Your task to perform on an android device: Go to notification settings Image 0: 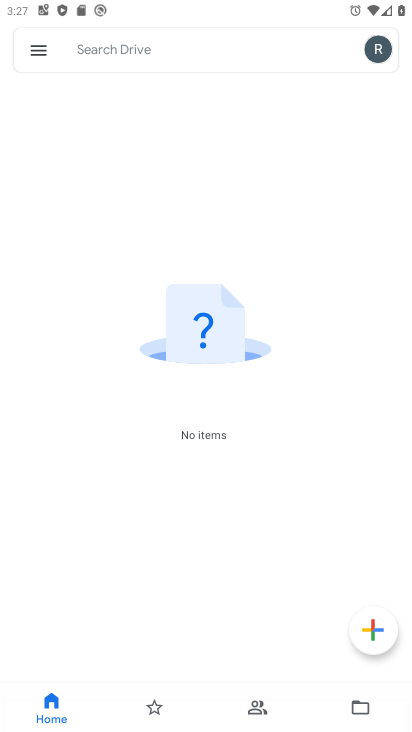
Step 0: press home button
Your task to perform on an android device: Go to notification settings Image 1: 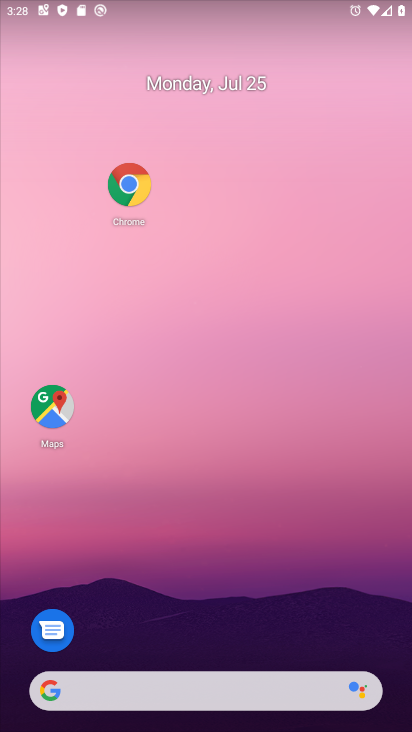
Step 1: drag from (258, 627) to (251, 112)
Your task to perform on an android device: Go to notification settings Image 2: 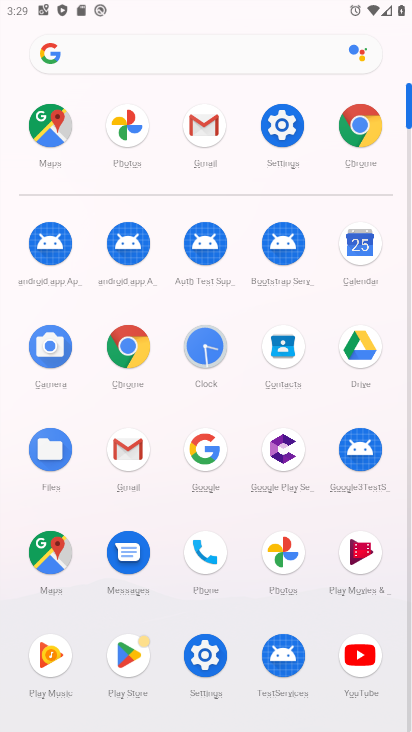
Step 2: click (205, 674)
Your task to perform on an android device: Go to notification settings Image 3: 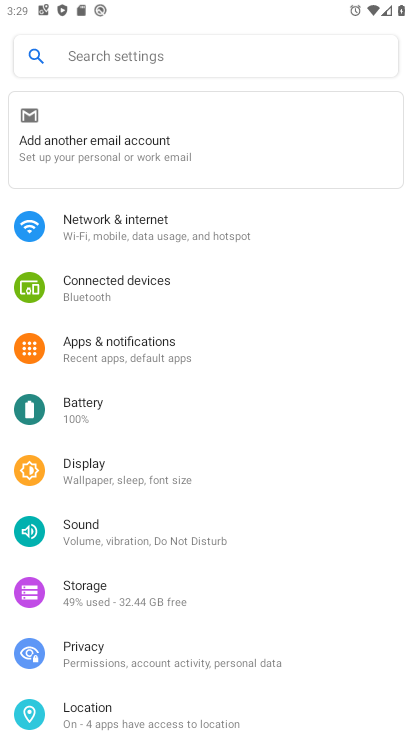
Step 3: click (119, 351)
Your task to perform on an android device: Go to notification settings Image 4: 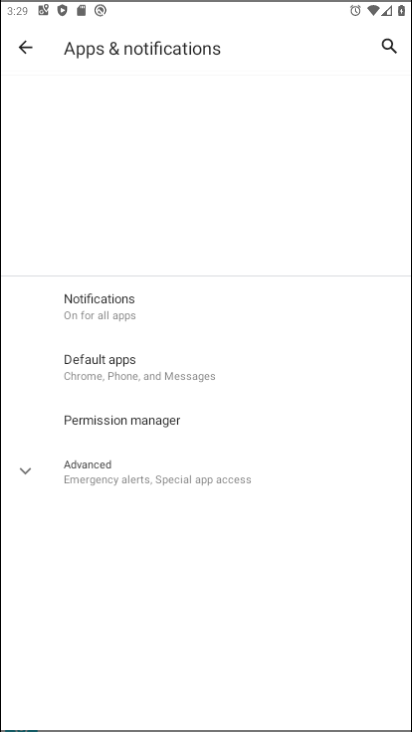
Step 4: task complete